Your task to perform on an android device: Go to accessibility settings Image 0: 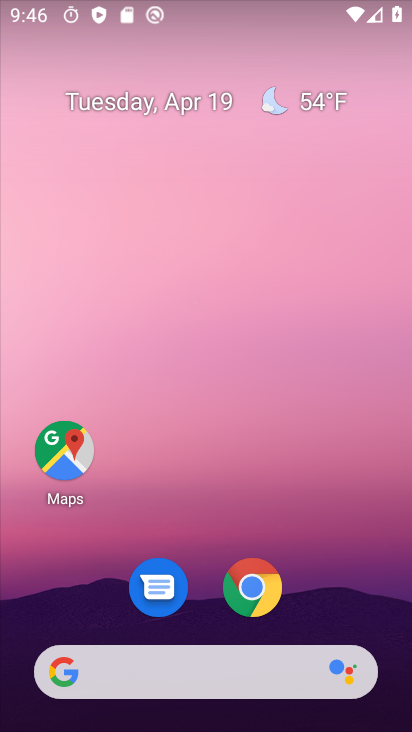
Step 0: drag from (355, 589) to (404, 43)
Your task to perform on an android device: Go to accessibility settings Image 1: 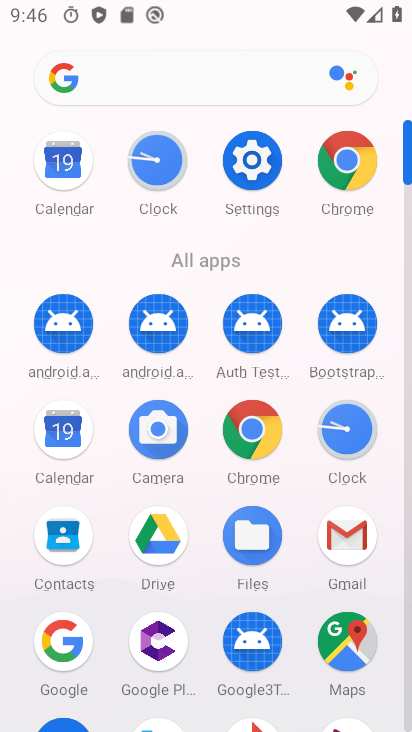
Step 1: click (267, 155)
Your task to perform on an android device: Go to accessibility settings Image 2: 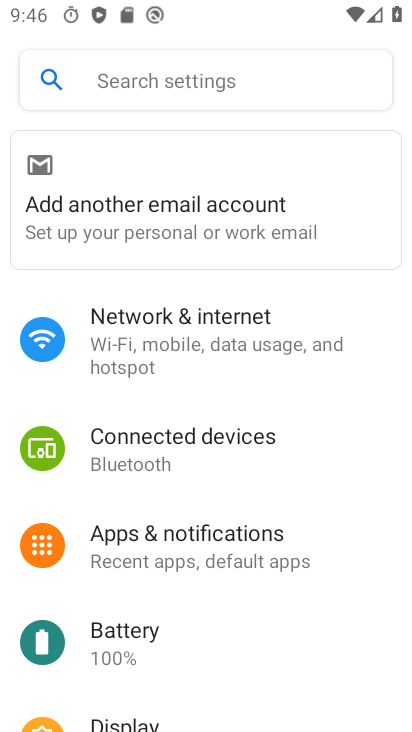
Step 2: drag from (155, 645) to (216, 332)
Your task to perform on an android device: Go to accessibility settings Image 3: 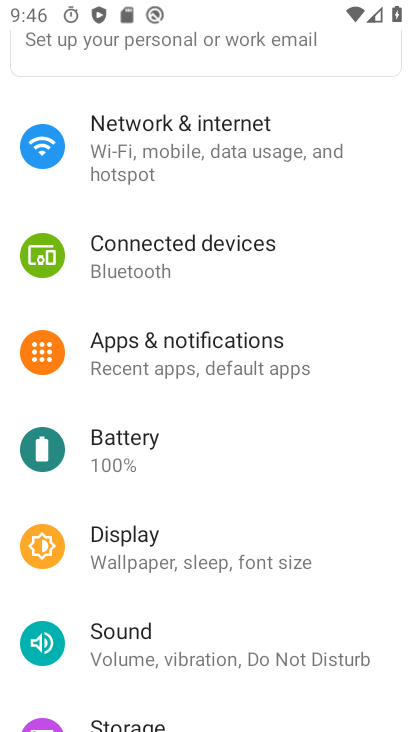
Step 3: drag from (211, 646) to (231, 257)
Your task to perform on an android device: Go to accessibility settings Image 4: 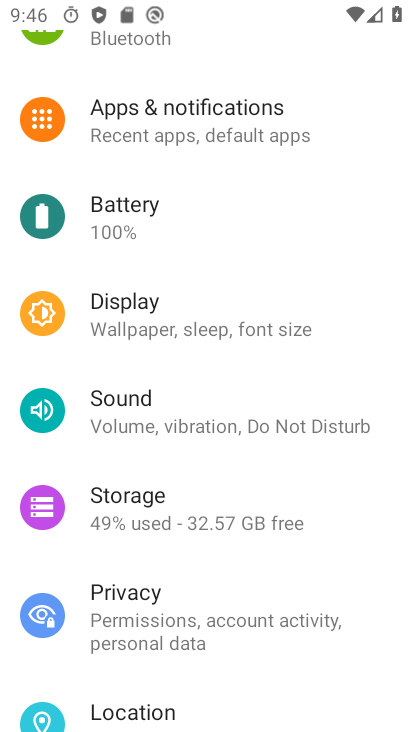
Step 4: drag from (268, 446) to (294, 241)
Your task to perform on an android device: Go to accessibility settings Image 5: 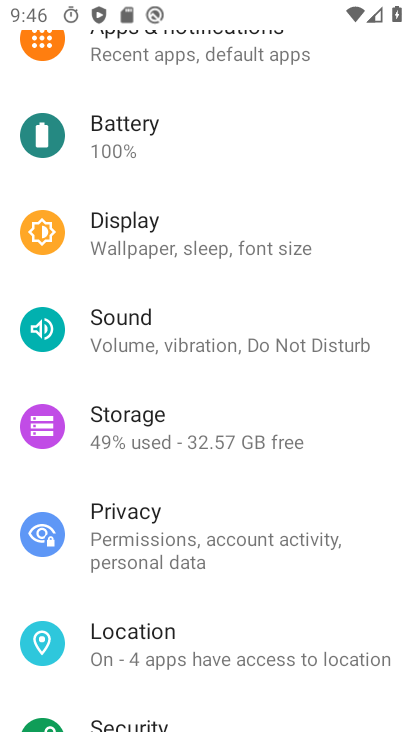
Step 5: drag from (218, 630) to (228, 234)
Your task to perform on an android device: Go to accessibility settings Image 6: 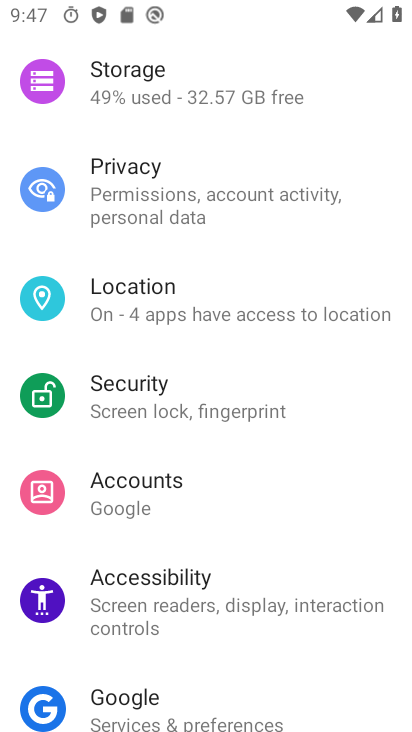
Step 6: click (158, 593)
Your task to perform on an android device: Go to accessibility settings Image 7: 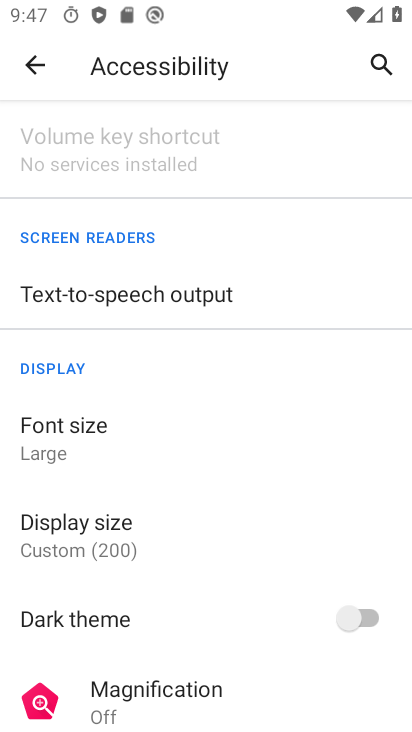
Step 7: task complete